Your task to perform on an android device: add a contact Image 0: 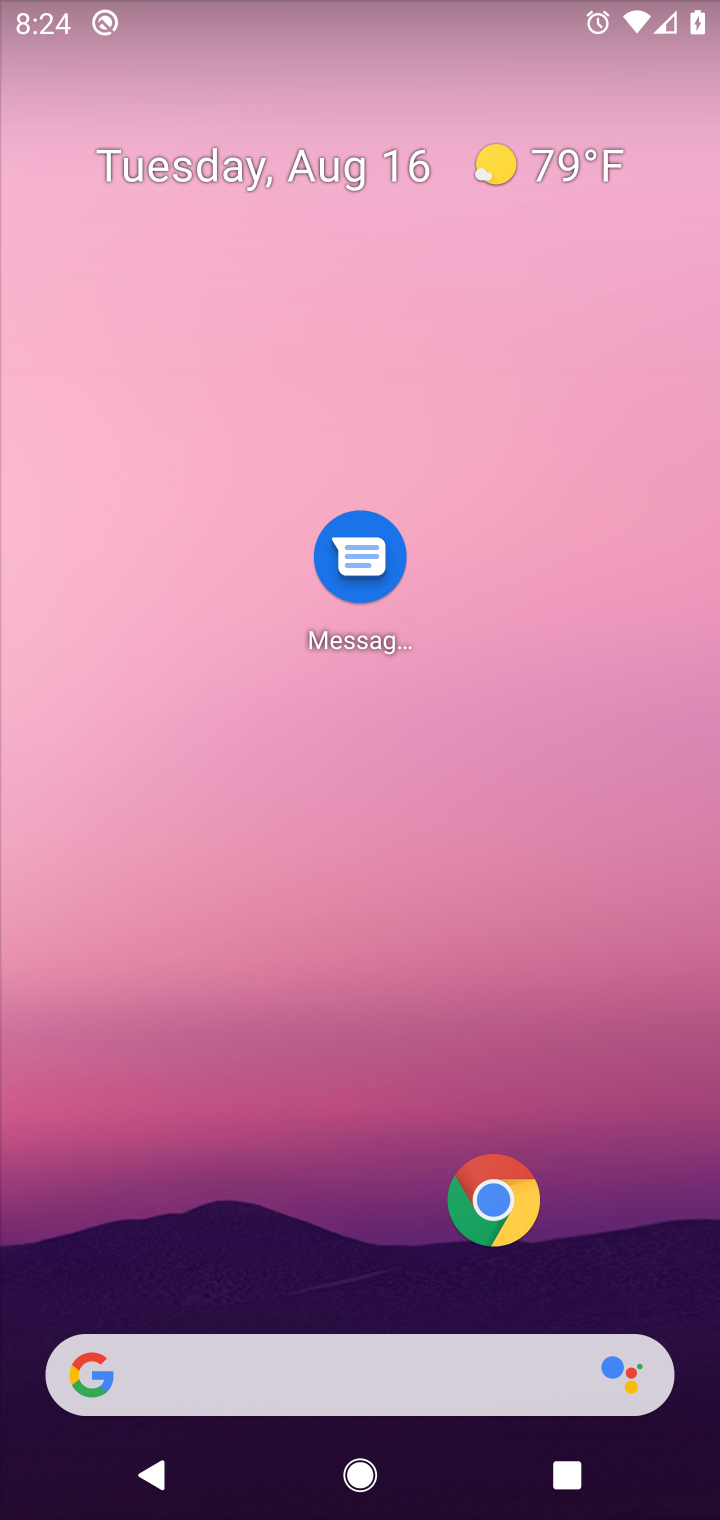
Step 0: drag from (64, 1442) to (446, 417)
Your task to perform on an android device: add a contact Image 1: 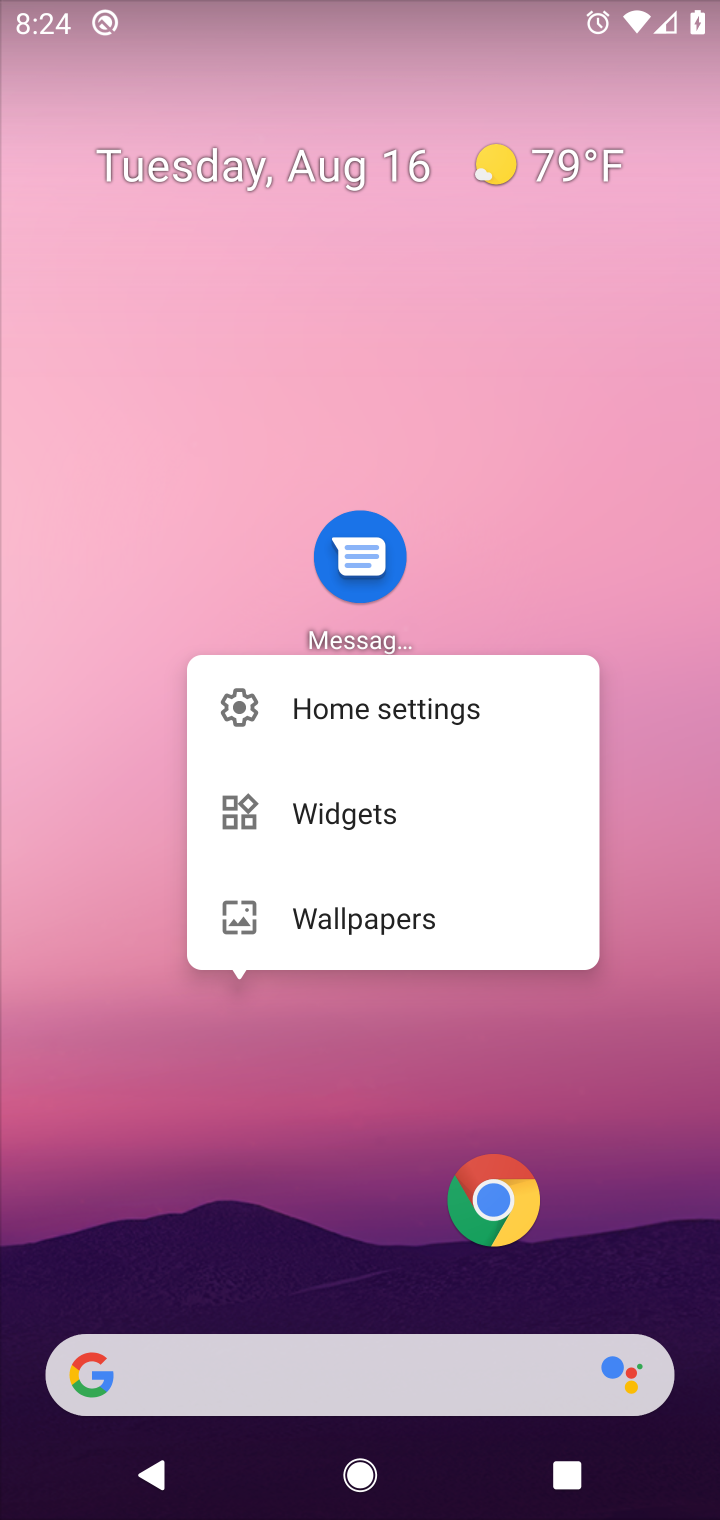
Step 1: task complete